Your task to perform on an android device: Open the stopwatch Image 0: 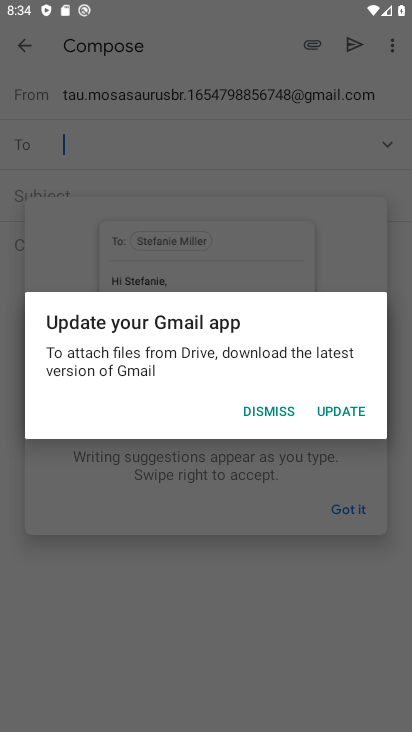
Step 0: press home button
Your task to perform on an android device: Open the stopwatch Image 1: 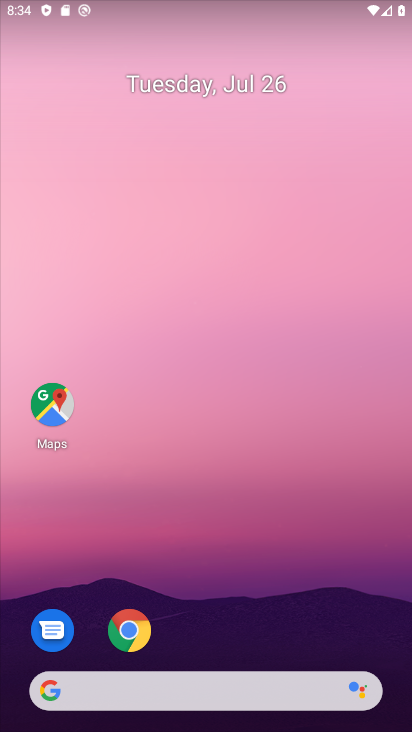
Step 1: drag from (263, 527) to (262, 7)
Your task to perform on an android device: Open the stopwatch Image 2: 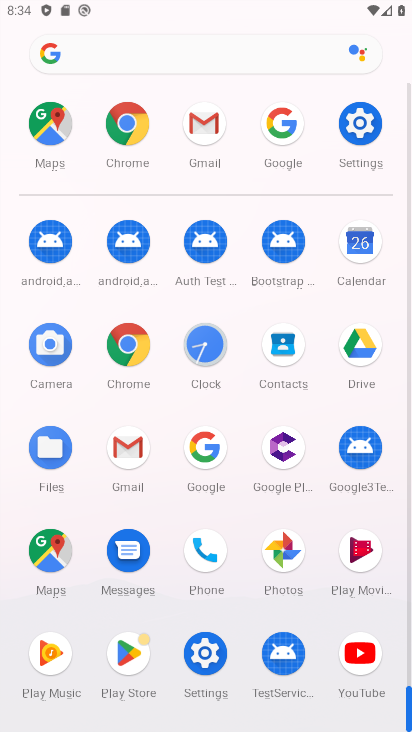
Step 2: click (208, 353)
Your task to perform on an android device: Open the stopwatch Image 3: 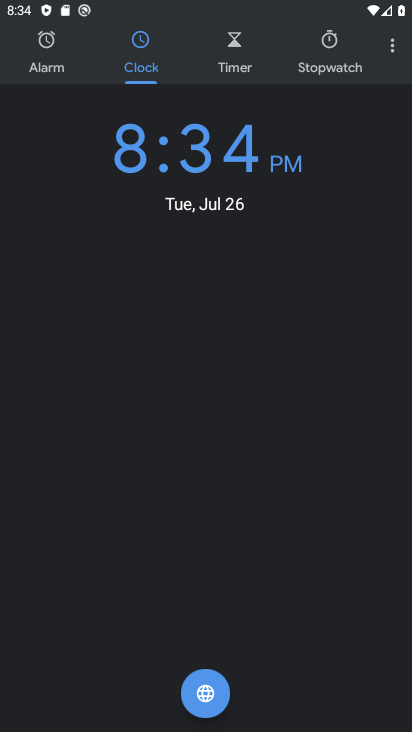
Step 3: click (324, 56)
Your task to perform on an android device: Open the stopwatch Image 4: 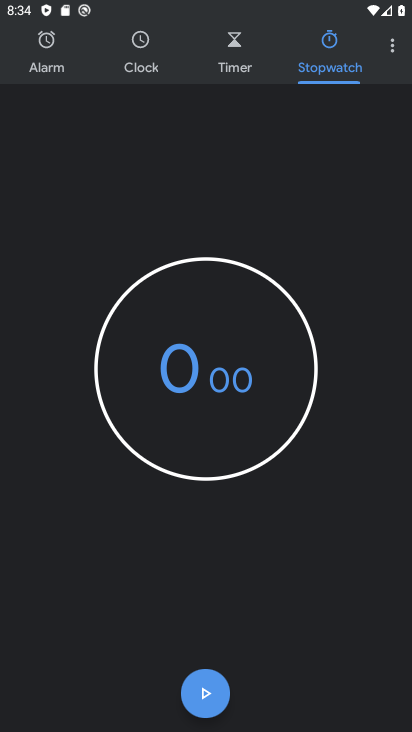
Step 4: task complete